Your task to perform on an android device: install app "McDonald's" Image 0: 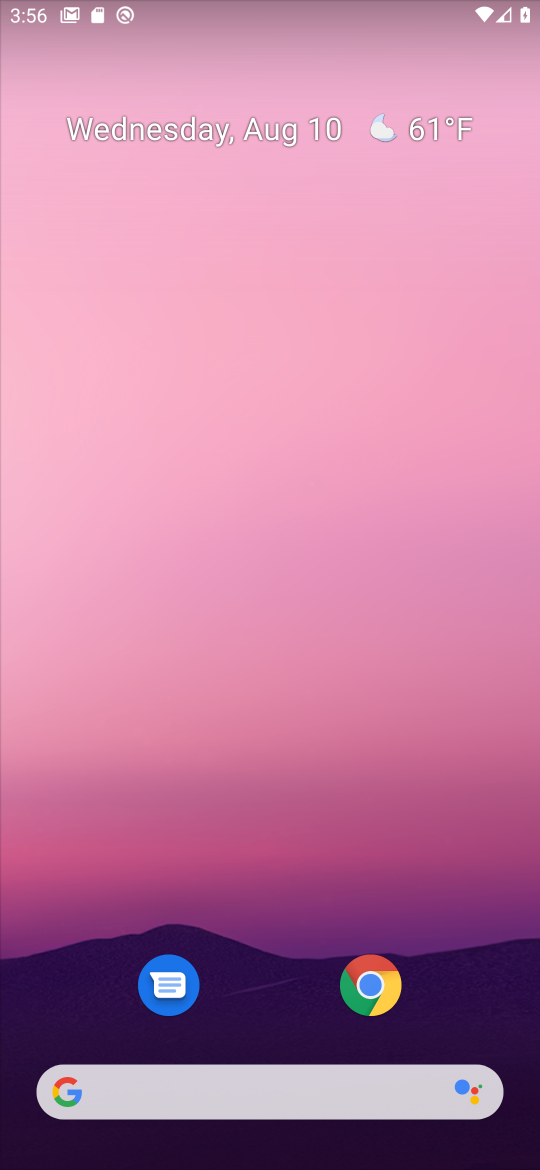
Step 0: drag from (237, 938) to (206, 93)
Your task to perform on an android device: install app "McDonald's" Image 1: 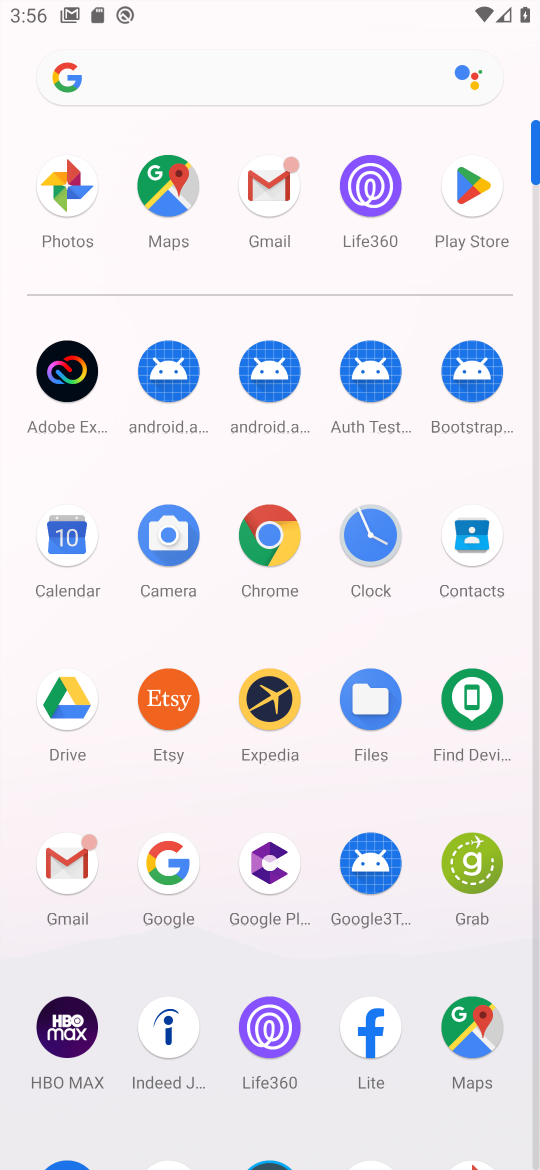
Step 1: click (478, 184)
Your task to perform on an android device: install app "McDonald's" Image 2: 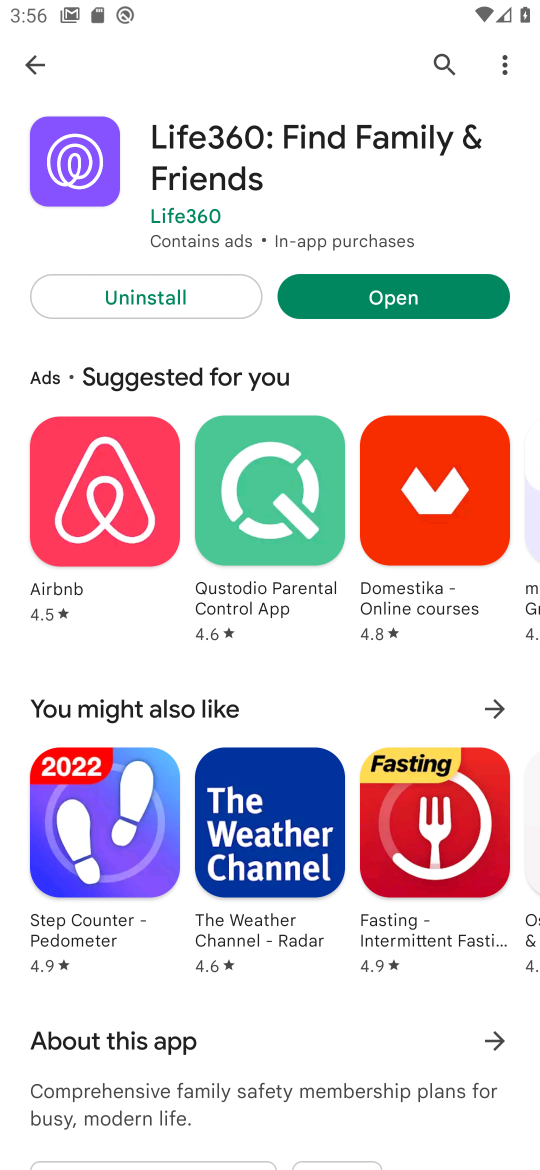
Step 2: click (37, 71)
Your task to perform on an android device: install app "McDonald's" Image 3: 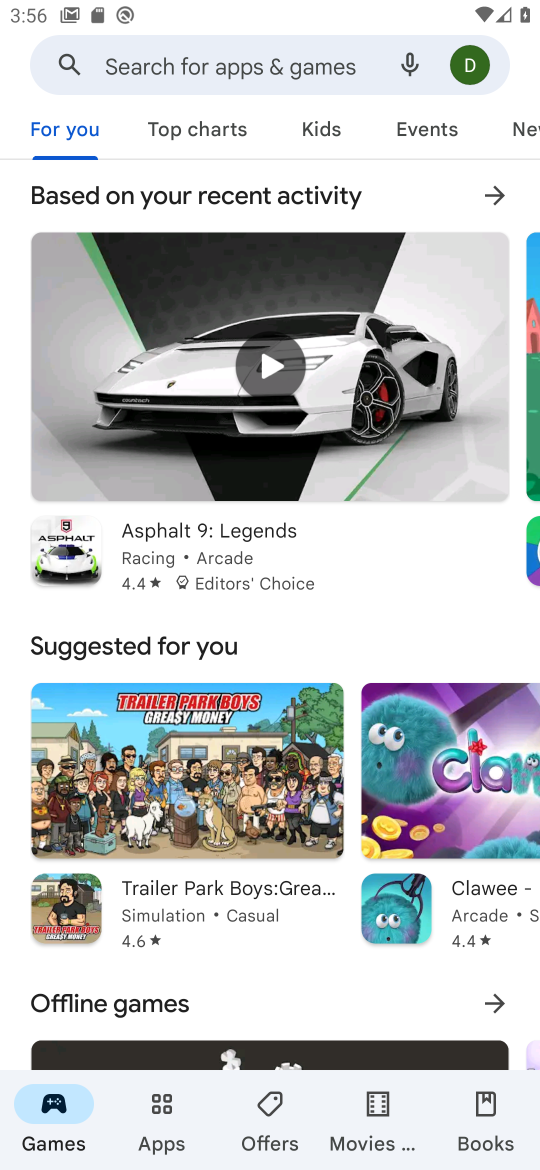
Step 3: click (192, 71)
Your task to perform on an android device: install app "McDonald's" Image 4: 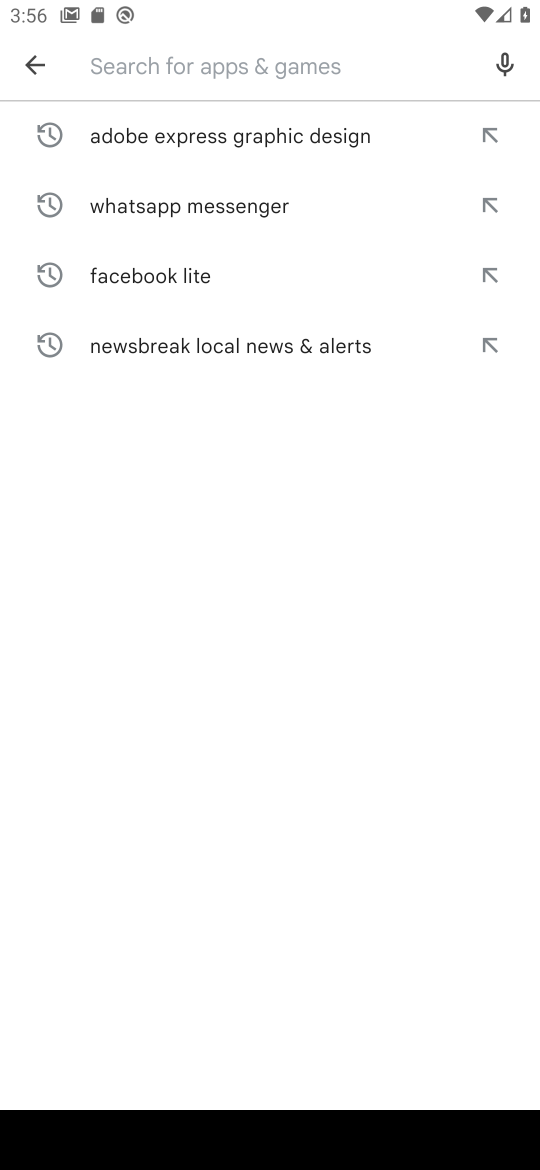
Step 4: type "McDonald's"
Your task to perform on an android device: install app "McDonald's" Image 5: 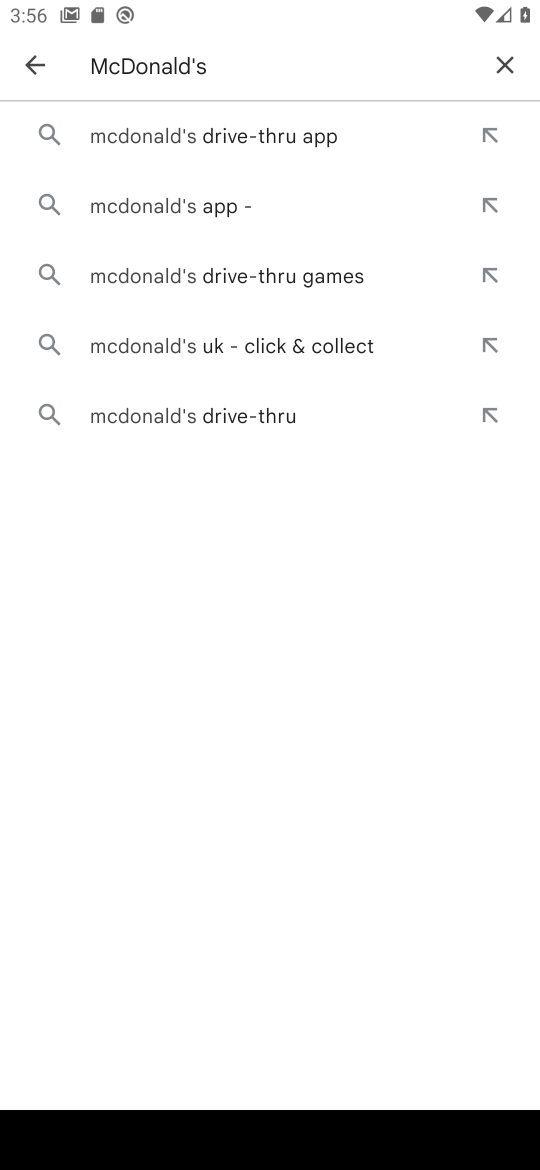
Step 5: click (195, 208)
Your task to perform on an android device: install app "McDonald's" Image 6: 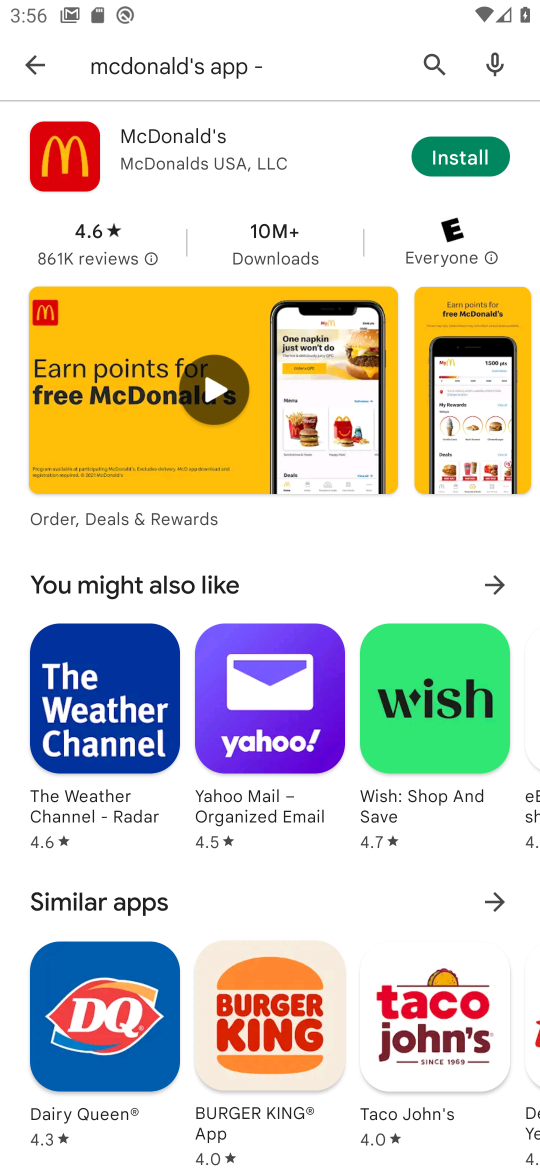
Step 6: click (451, 156)
Your task to perform on an android device: install app "McDonald's" Image 7: 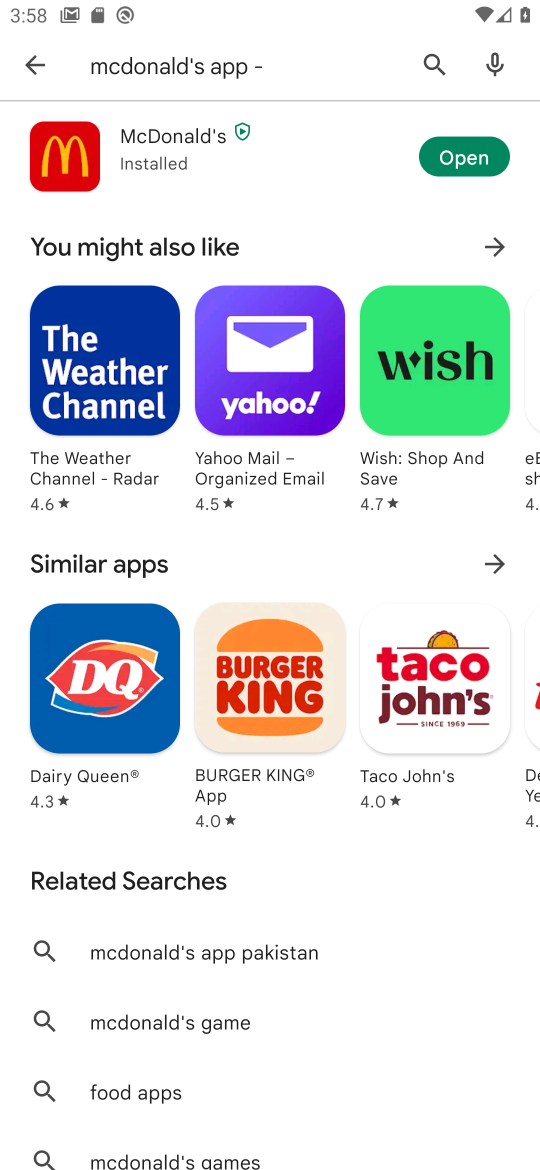
Step 7: task complete